Your task to perform on an android device: uninstall "Google Keep" Image 0: 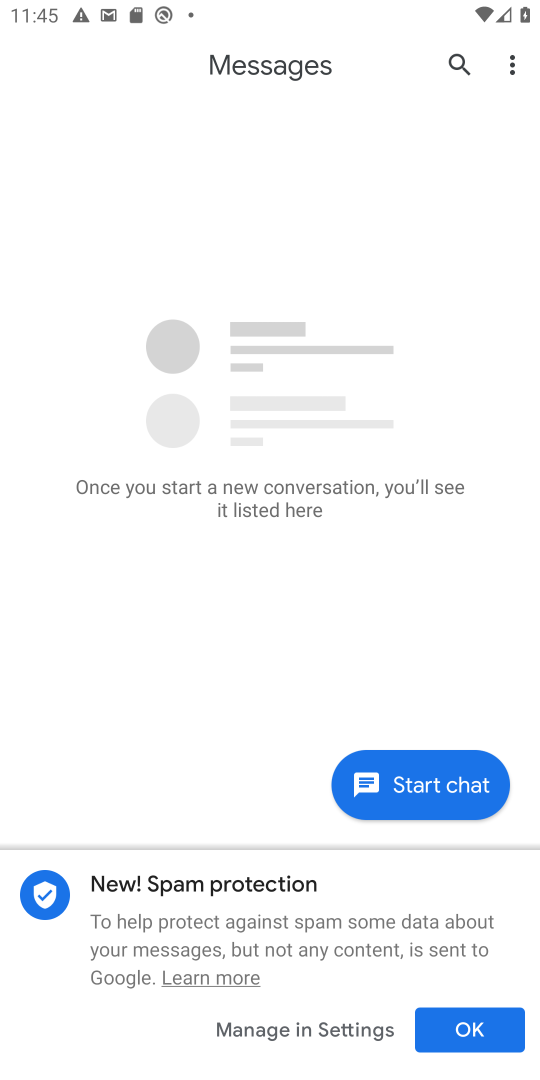
Step 0: press home button
Your task to perform on an android device: uninstall "Google Keep" Image 1: 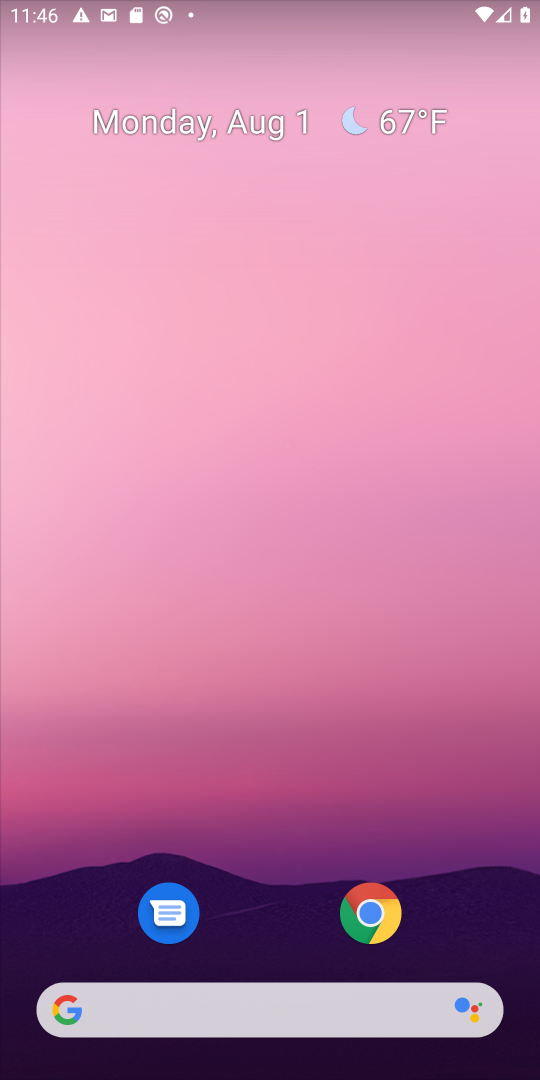
Step 1: drag from (507, 843) to (388, 0)
Your task to perform on an android device: uninstall "Google Keep" Image 2: 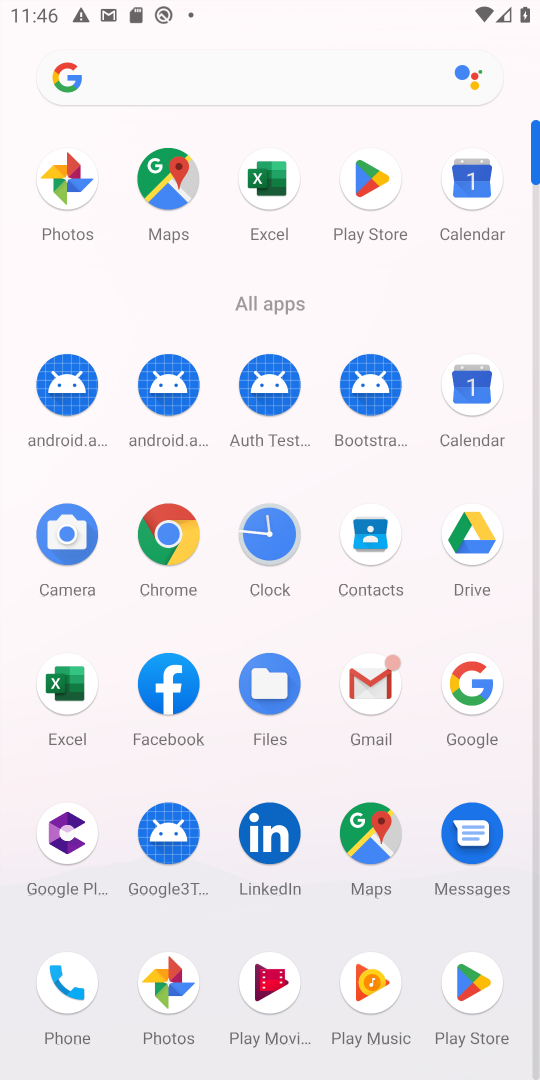
Step 2: click (381, 172)
Your task to perform on an android device: uninstall "Google Keep" Image 3: 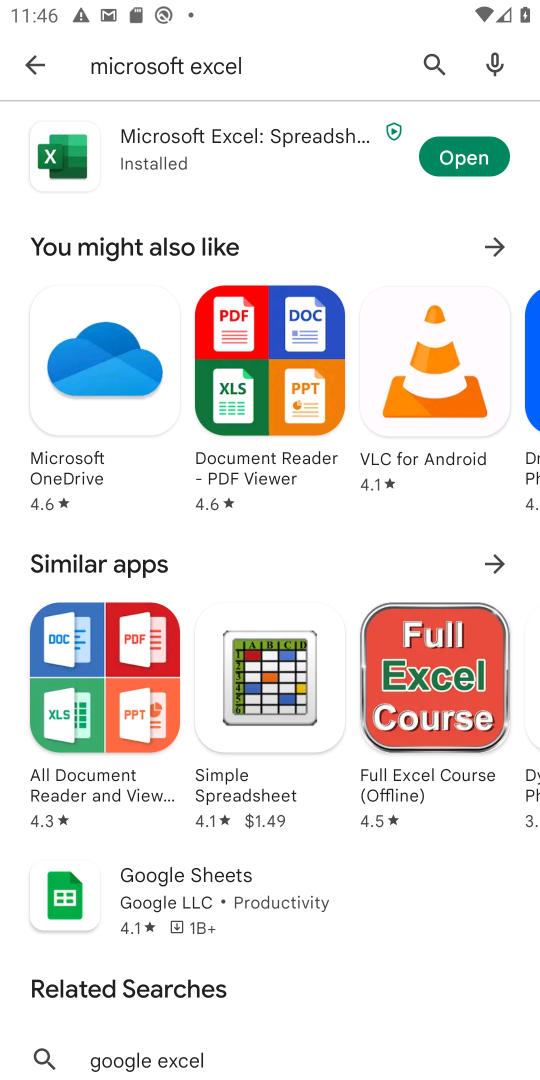
Step 3: click (438, 58)
Your task to perform on an android device: uninstall "Google Keep" Image 4: 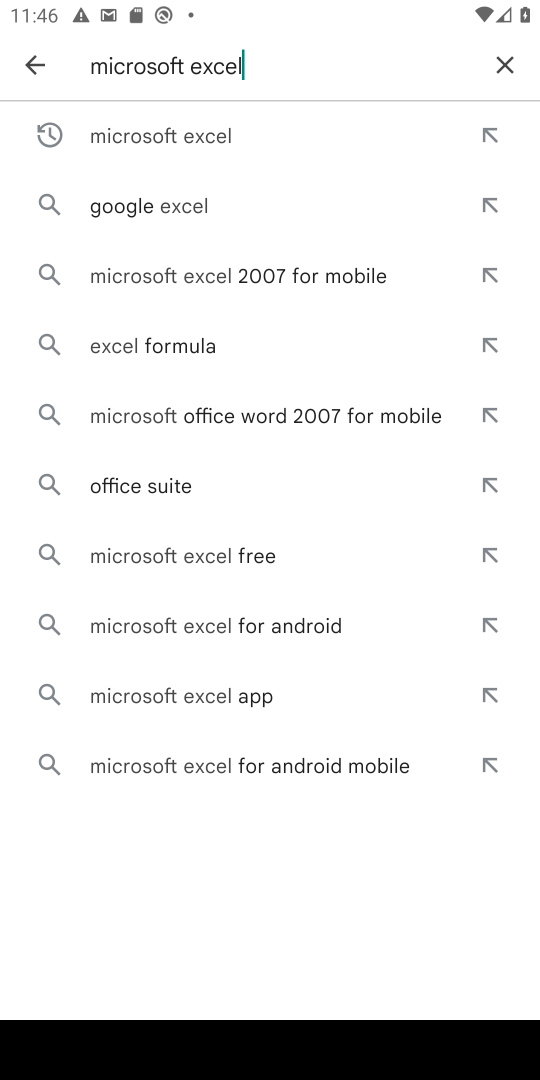
Step 4: click (515, 61)
Your task to perform on an android device: uninstall "Google Keep" Image 5: 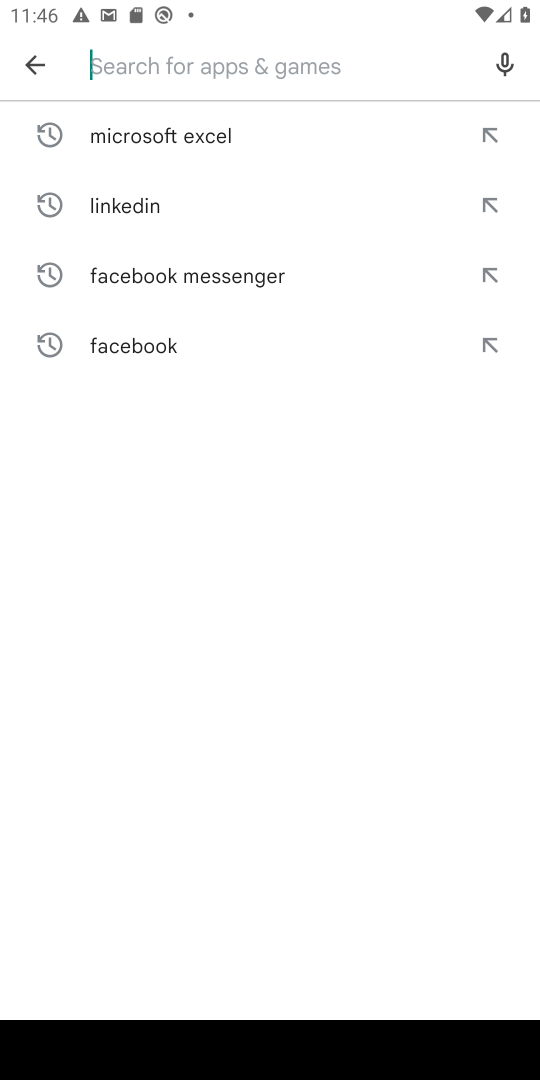
Step 5: type "Google Keep"
Your task to perform on an android device: uninstall "Google Keep" Image 6: 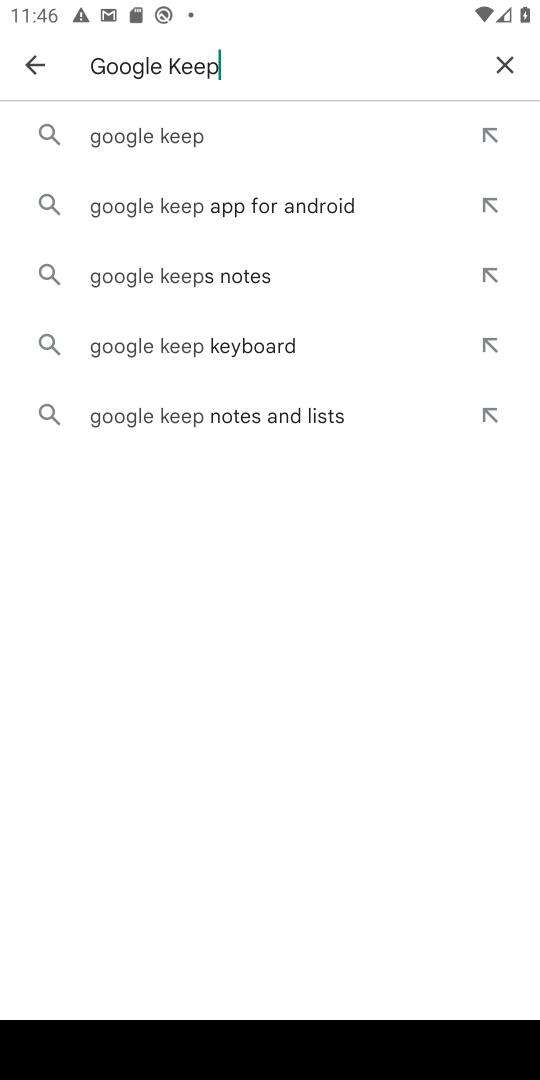
Step 6: click (122, 134)
Your task to perform on an android device: uninstall "Google Keep" Image 7: 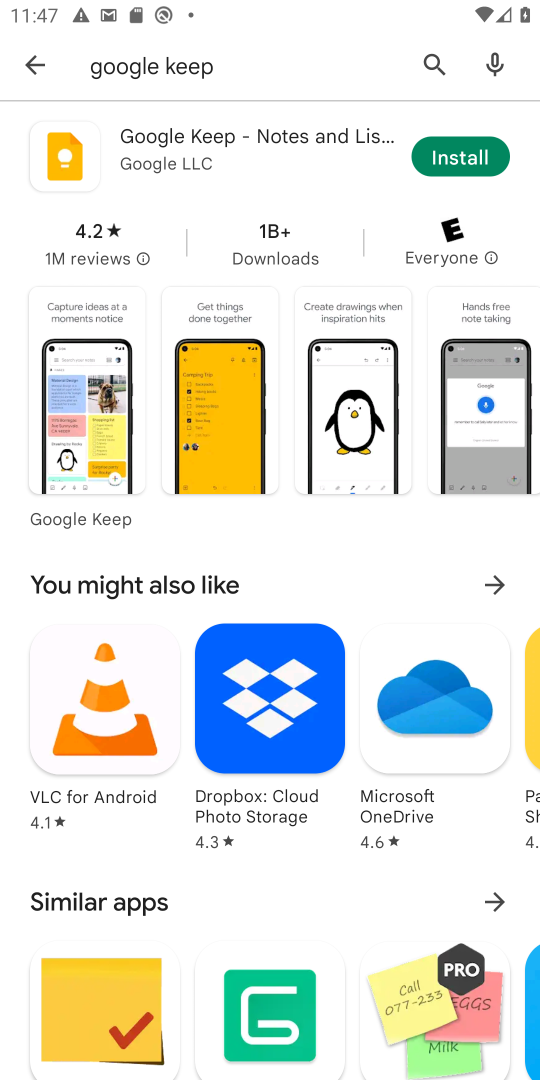
Step 7: click (482, 158)
Your task to perform on an android device: uninstall "Google Keep" Image 8: 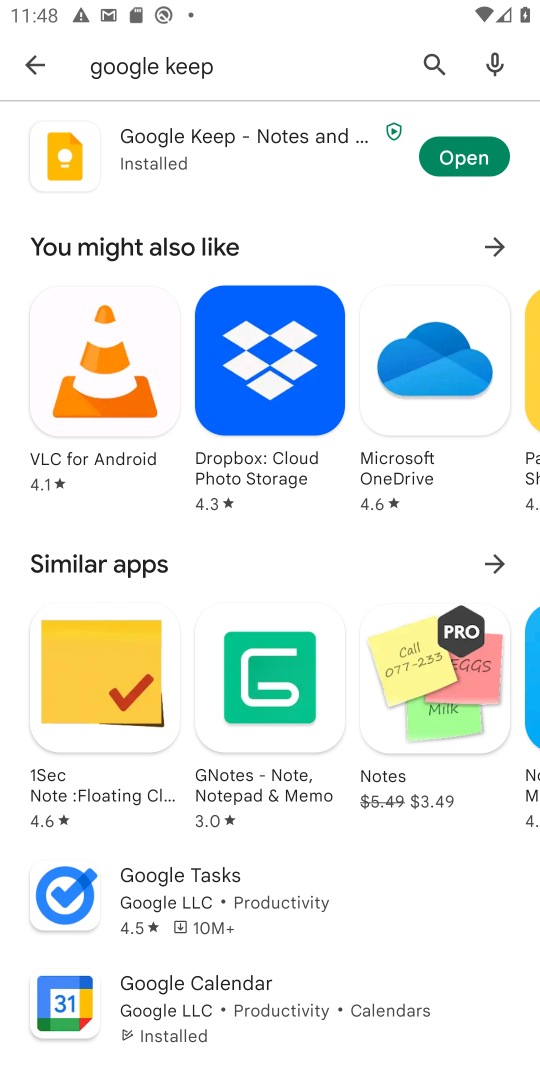
Step 8: task complete